Your task to perform on an android device: Search for vegetarian restaurants on Maps Image 0: 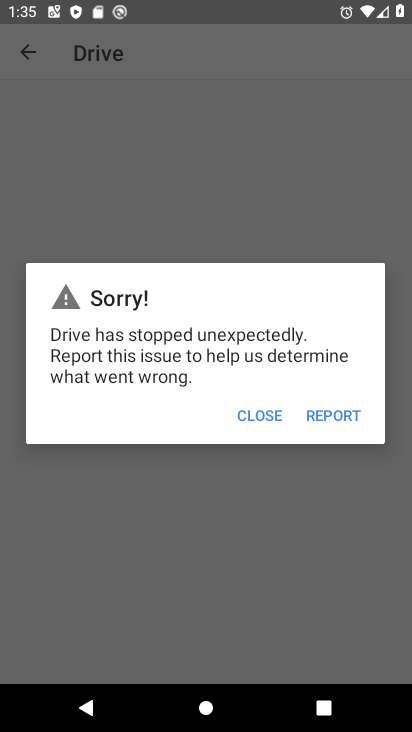
Step 0: press home button
Your task to perform on an android device: Search for vegetarian restaurants on Maps Image 1: 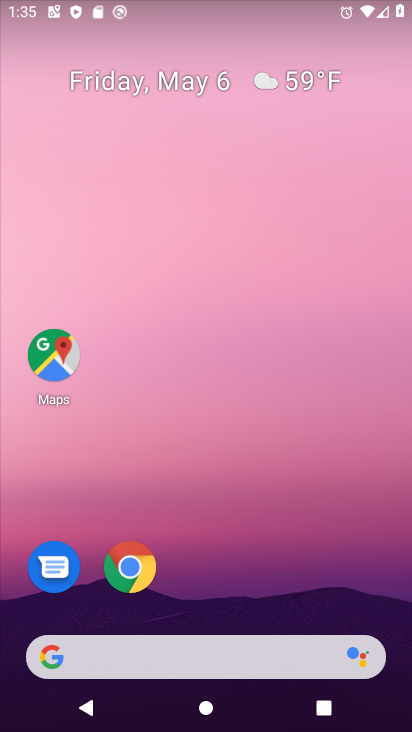
Step 1: click (55, 374)
Your task to perform on an android device: Search for vegetarian restaurants on Maps Image 2: 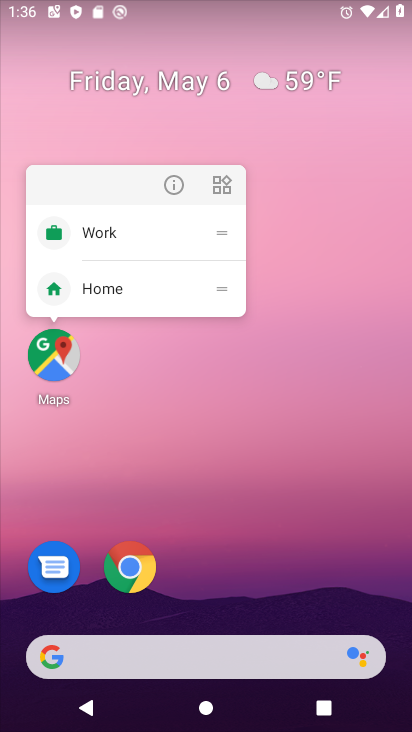
Step 2: click (72, 360)
Your task to perform on an android device: Search for vegetarian restaurants on Maps Image 3: 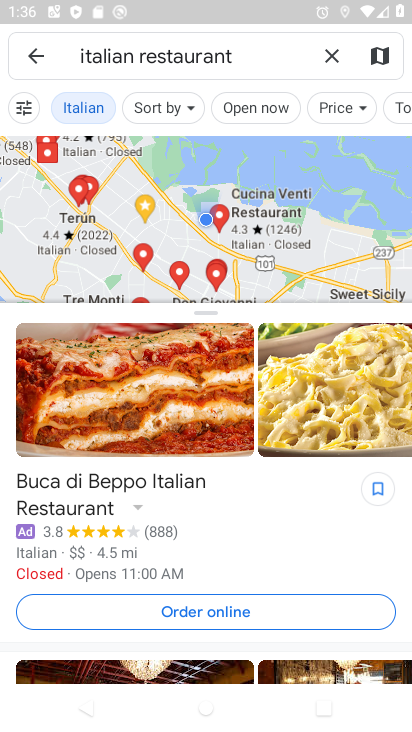
Step 3: click (30, 53)
Your task to perform on an android device: Search for vegetarian restaurants on Maps Image 4: 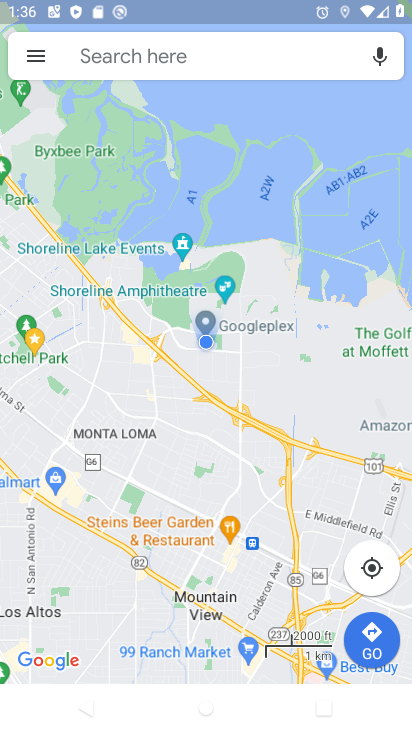
Step 4: click (116, 56)
Your task to perform on an android device: Search for vegetarian restaurants on Maps Image 5: 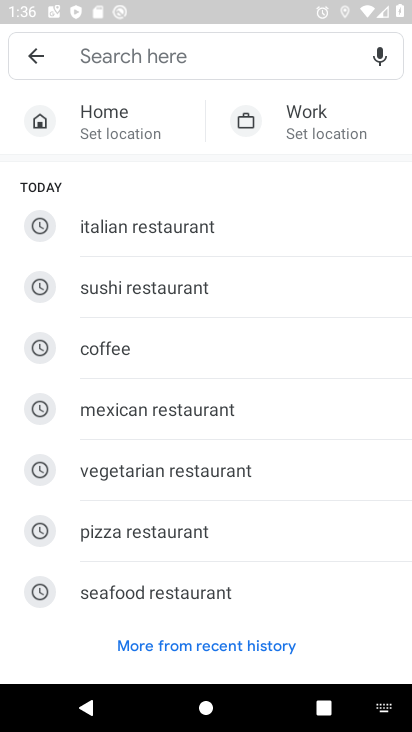
Step 5: click (184, 467)
Your task to perform on an android device: Search for vegetarian restaurants on Maps Image 6: 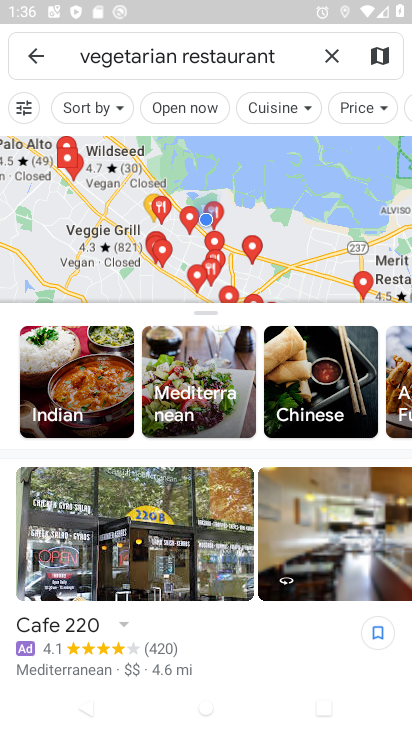
Step 6: task complete